Your task to perform on an android device: Search for vegetarian restaurants on Maps Image 0: 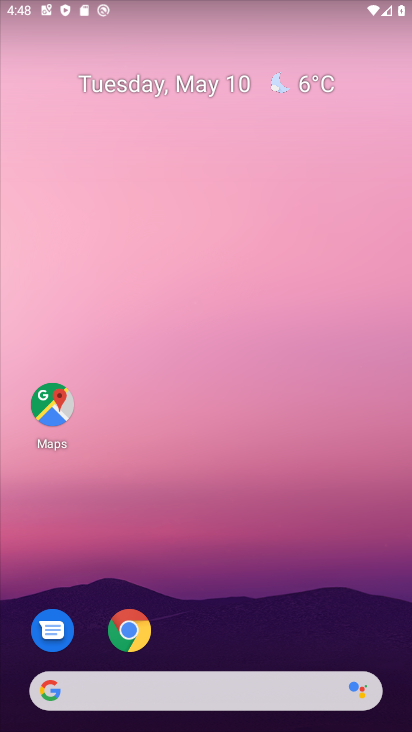
Step 0: drag from (275, 626) to (282, 136)
Your task to perform on an android device: Search for vegetarian restaurants on Maps Image 1: 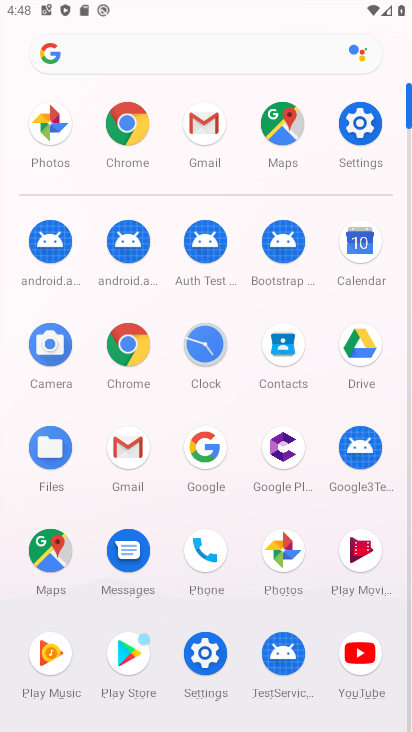
Step 1: click (289, 126)
Your task to perform on an android device: Search for vegetarian restaurants on Maps Image 2: 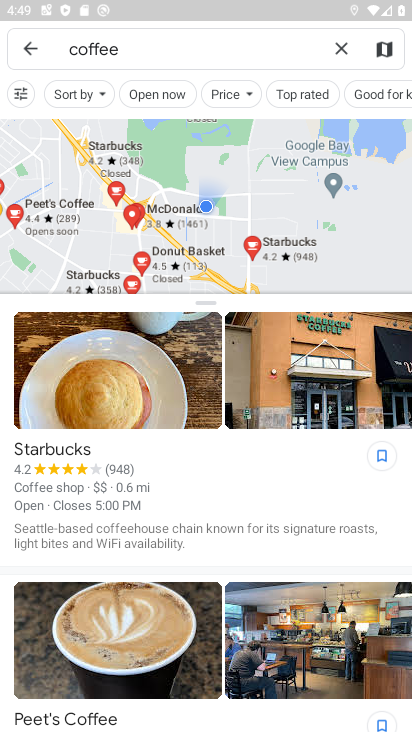
Step 2: click (225, 44)
Your task to perform on an android device: Search for vegetarian restaurants on Maps Image 3: 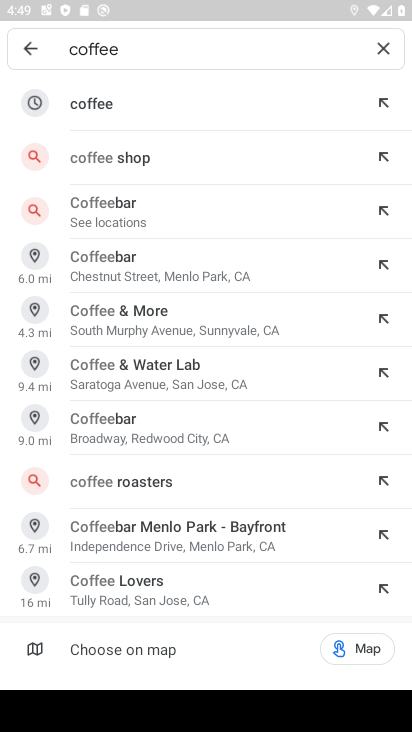
Step 3: click (378, 47)
Your task to perform on an android device: Search for vegetarian restaurants on Maps Image 4: 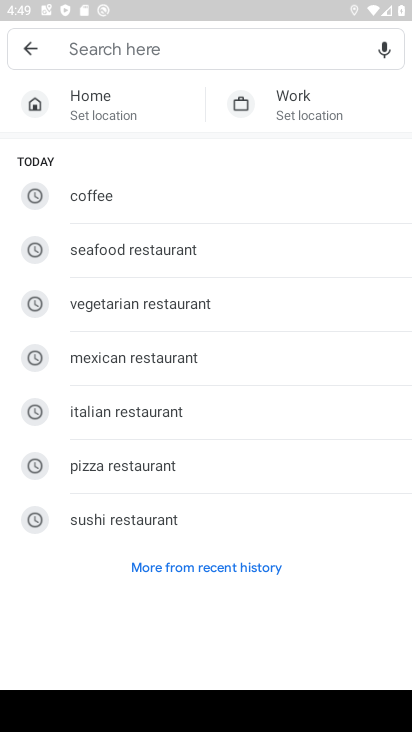
Step 4: type "vegetarian restaurants"
Your task to perform on an android device: Search for vegetarian restaurants on Maps Image 5: 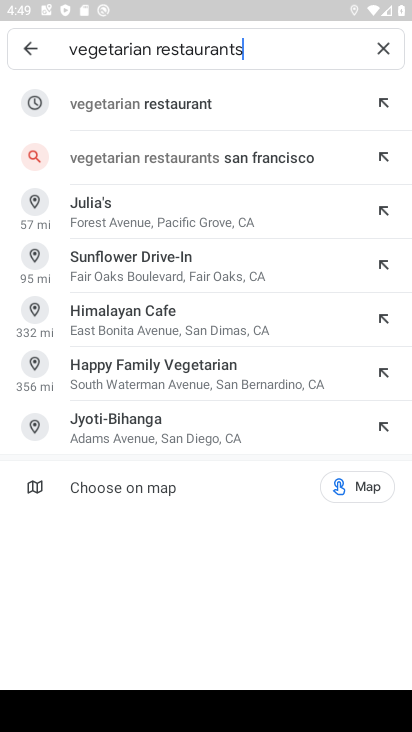
Step 5: press enter
Your task to perform on an android device: Search for vegetarian restaurants on Maps Image 6: 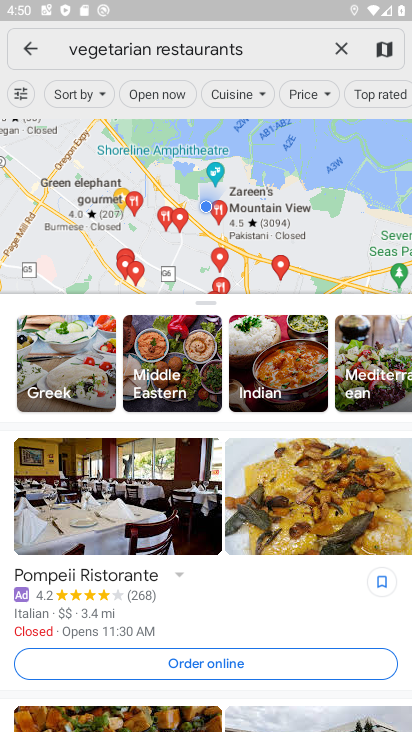
Step 6: task complete